Your task to perform on an android device: toggle improve location accuracy Image 0: 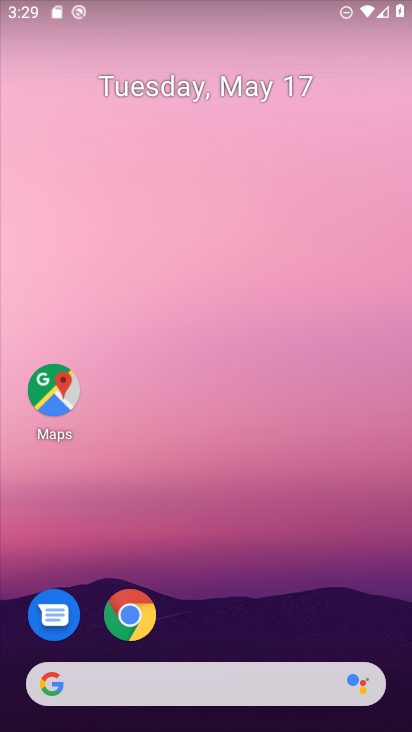
Step 0: drag from (207, 722) to (208, 127)
Your task to perform on an android device: toggle improve location accuracy Image 1: 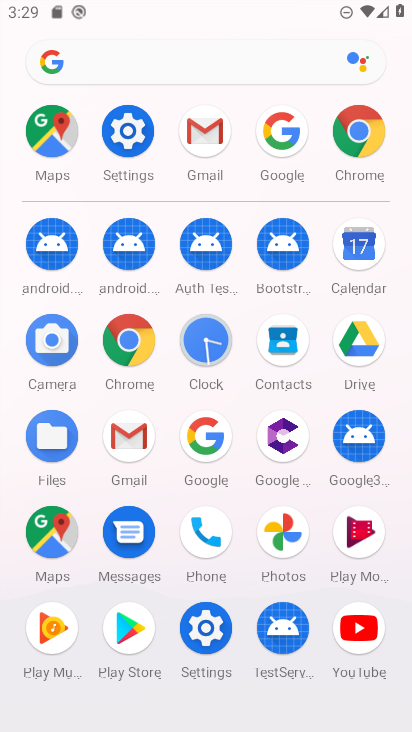
Step 1: click (126, 135)
Your task to perform on an android device: toggle improve location accuracy Image 2: 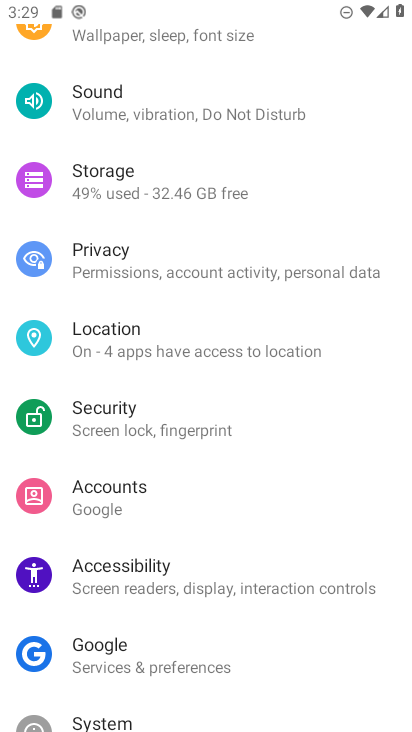
Step 2: click (109, 343)
Your task to perform on an android device: toggle improve location accuracy Image 3: 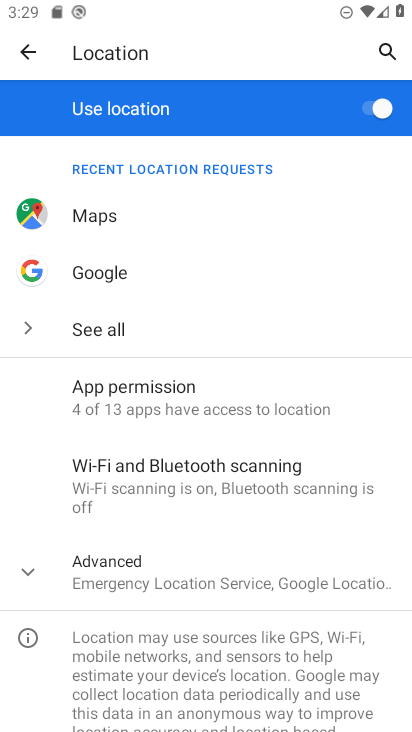
Step 3: drag from (140, 589) to (150, 246)
Your task to perform on an android device: toggle improve location accuracy Image 4: 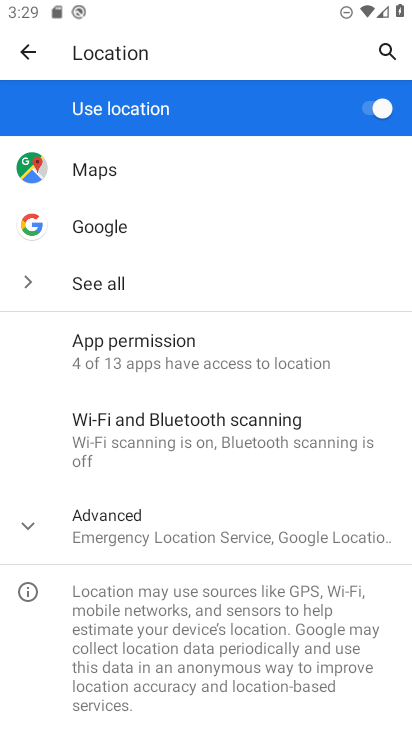
Step 4: click (131, 530)
Your task to perform on an android device: toggle improve location accuracy Image 5: 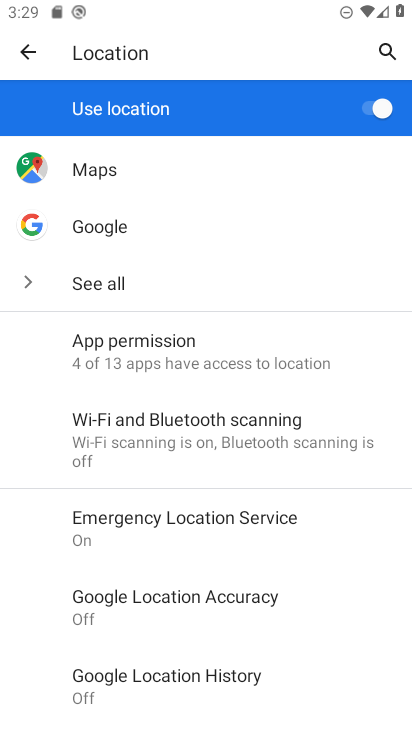
Step 5: click (169, 588)
Your task to perform on an android device: toggle improve location accuracy Image 6: 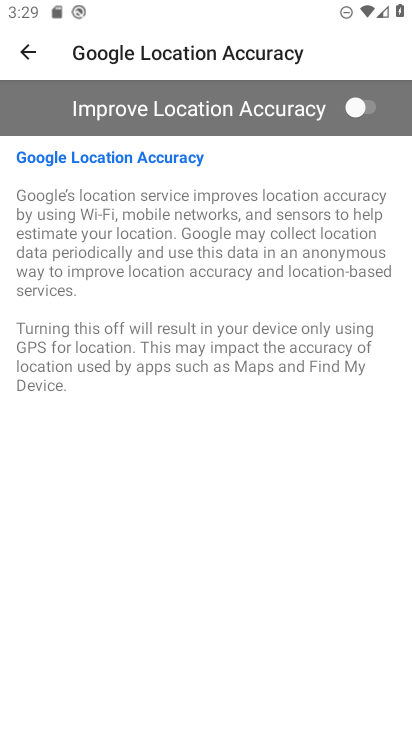
Step 6: click (367, 112)
Your task to perform on an android device: toggle improve location accuracy Image 7: 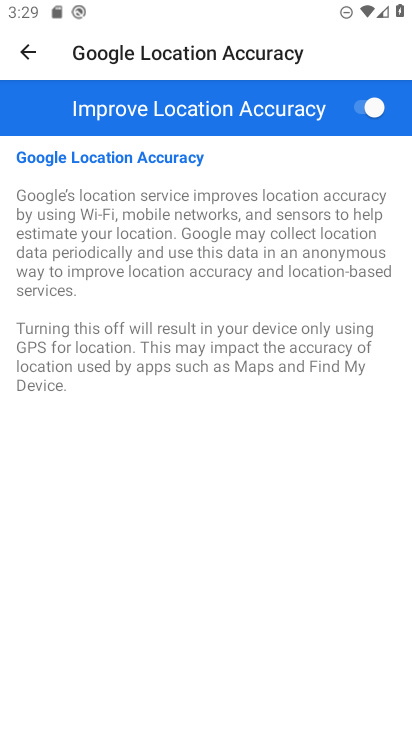
Step 7: task complete